Your task to perform on an android device: Go to internet settings Image 0: 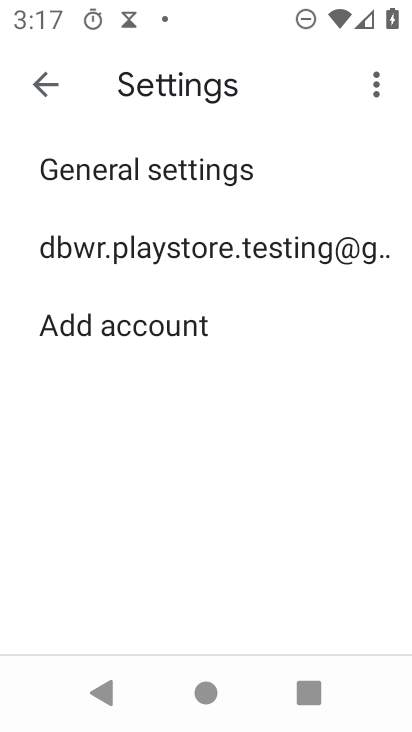
Step 0: press home button
Your task to perform on an android device: Go to internet settings Image 1: 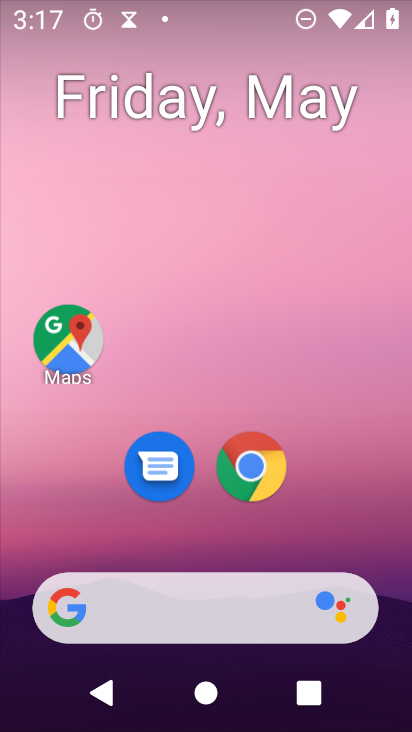
Step 1: drag from (350, 501) to (384, 87)
Your task to perform on an android device: Go to internet settings Image 2: 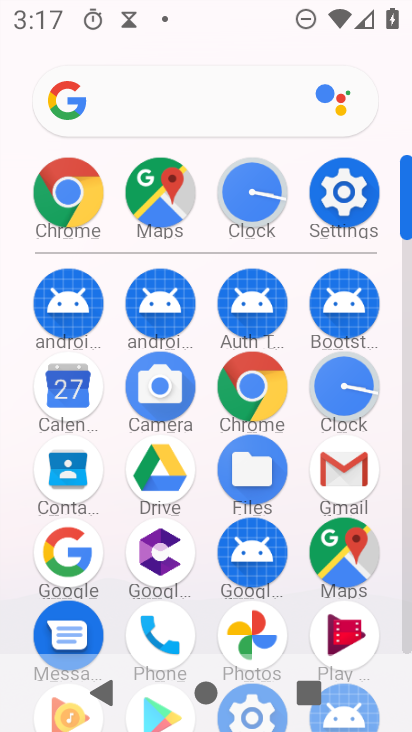
Step 2: click (327, 190)
Your task to perform on an android device: Go to internet settings Image 3: 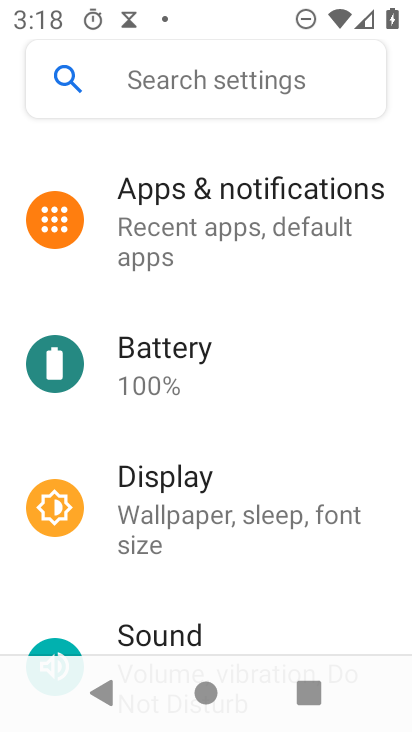
Step 3: drag from (239, 263) to (233, 596)
Your task to perform on an android device: Go to internet settings Image 4: 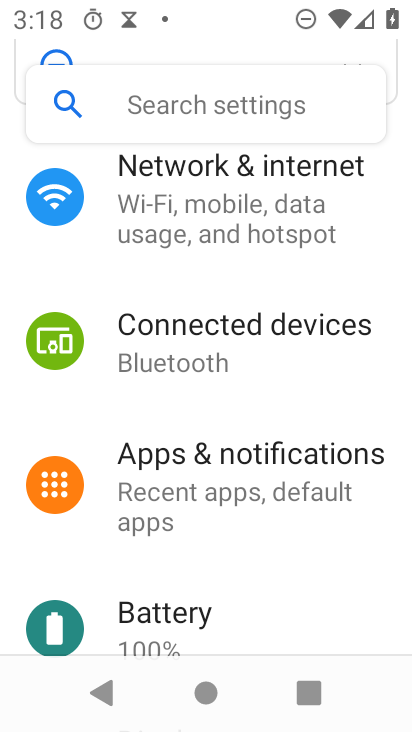
Step 4: drag from (265, 150) to (226, 569)
Your task to perform on an android device: Go to internet settings Image 5: 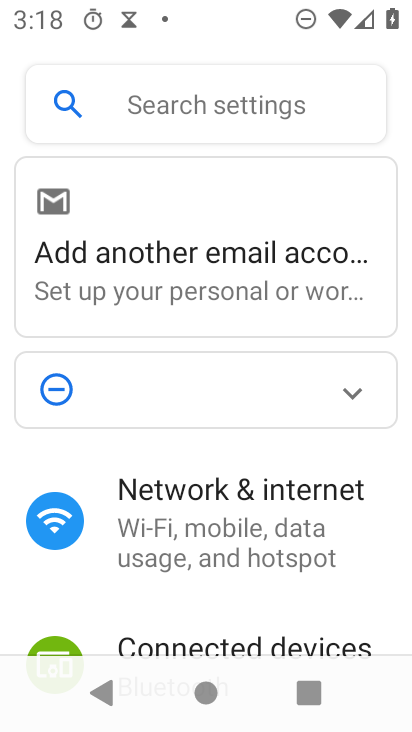
Step 5: click (189, 510)
Your task to perform on an android device: Go to internet settings Image 6: 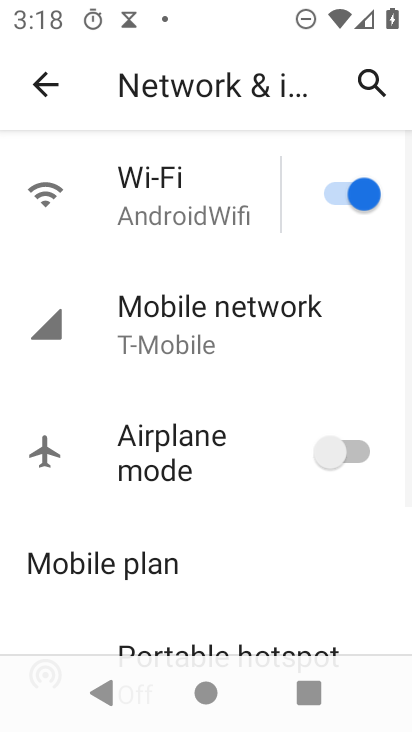
Step 6: task complete